Your task to perform on an android device: Open Amazon Image 0: 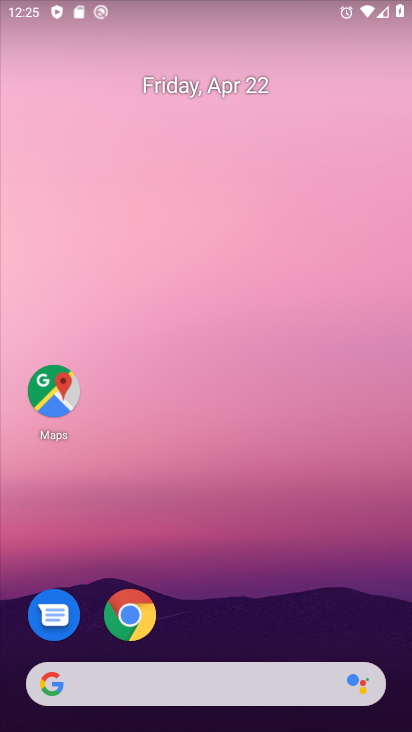
Step 0: click (145, 619)
Your task to perform on an android device: Open Amazon Image 1: 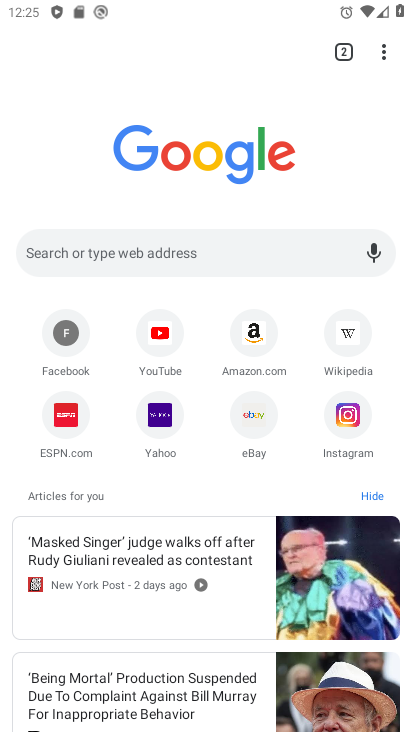
Step 1: click (248, 343)
Your task to perform on an android device: Open Amazon Image 2: 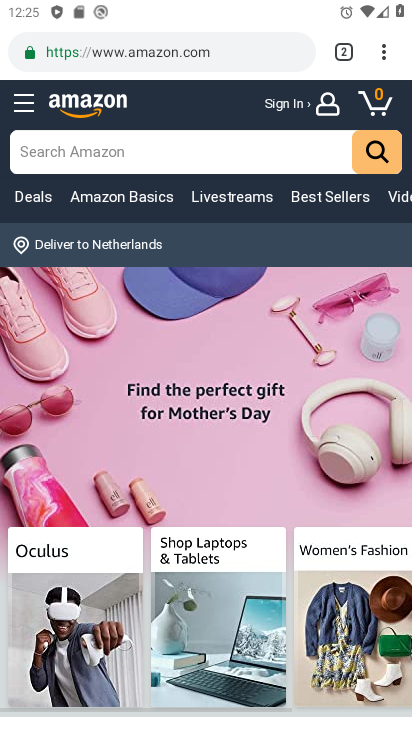
Step 2: task complete